Your task to perform on an android device: Show me popular videos on Youtube Image 0: 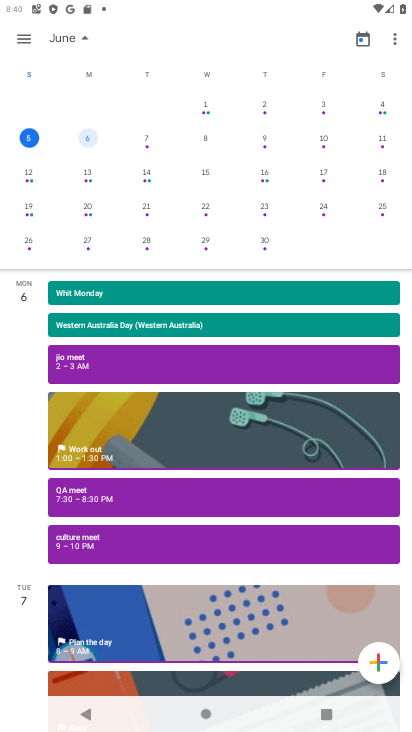
Step 0: press home button
Your task to perform on an android device: Show me popular videos on Youtube Image 1: 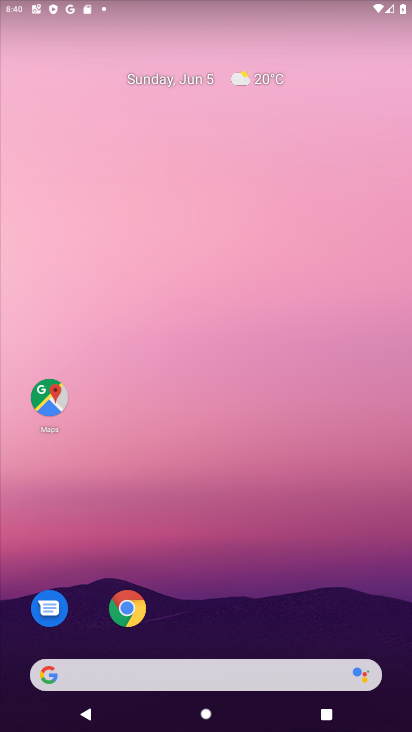
Step 1: drag from (85, 488) to (253, 148)
Your task to perform on an android device: Show me popular videos on Youtube Image 2: 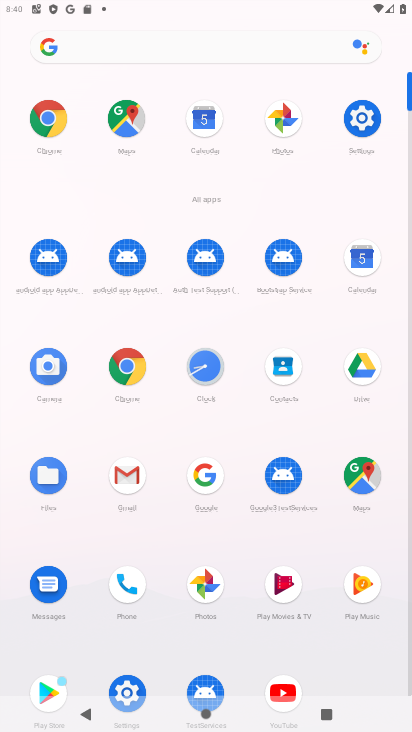
Step 2: click (276, 687)
Your task to perform on an android device: Show me popular videos on Youtube Image 3: 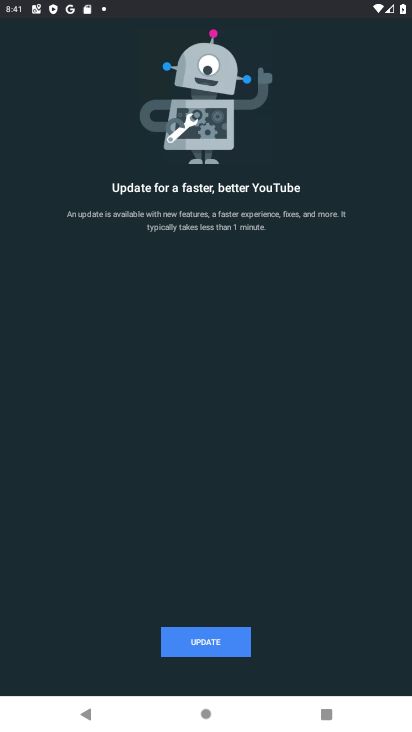
Step 3: task complete